Your task to perform on an android device: Open Wikipedia Image 0: 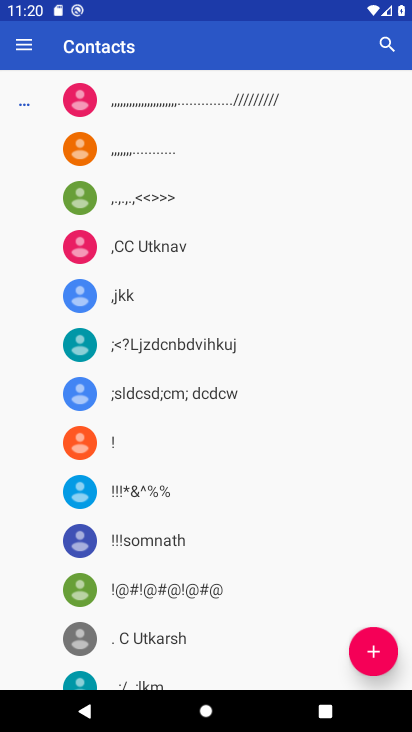
Step 0: press home button
Your task to perform on an android device: Open Wikipedia Image 1: 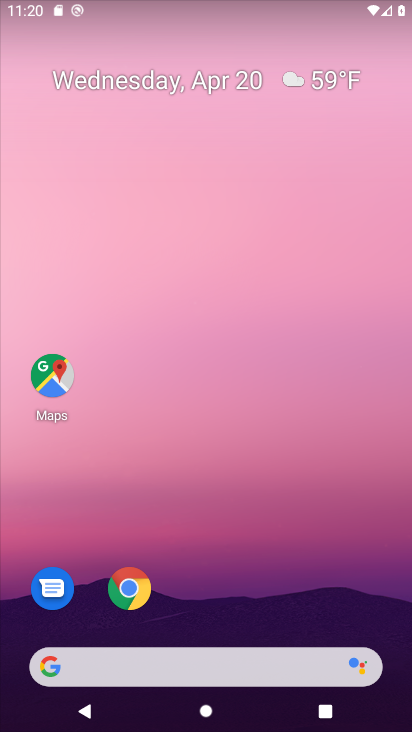
Step 1: drag from (394, 636) to (344, 450)
Your task to perform on an android device: Open Wikipedia Image 2: 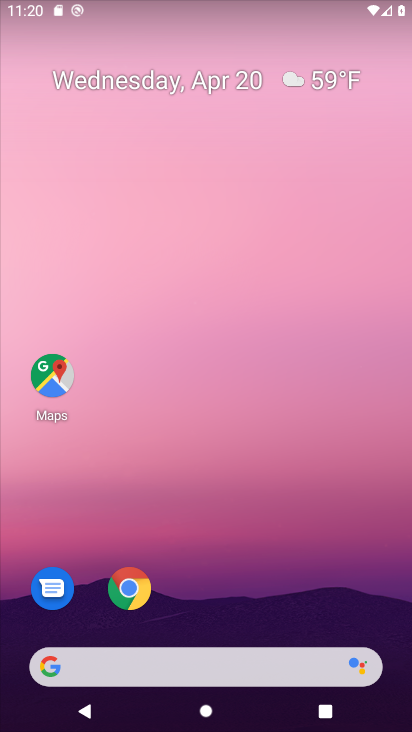
Step 2: click (132, 590)
Your task to perform on an android device: Open Wikipedia Image 3: 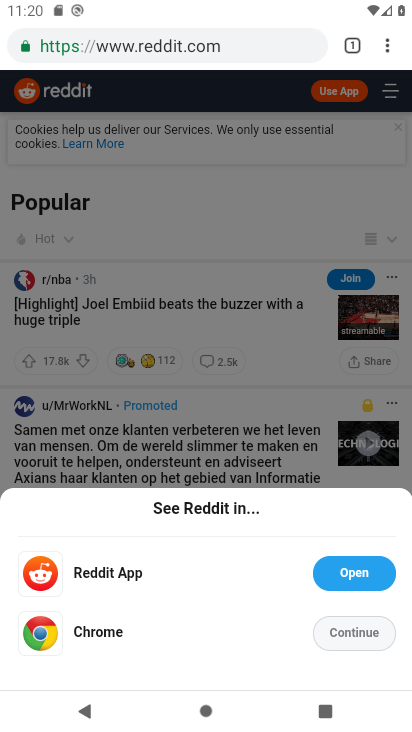
Step 3: click (386, 41)
Your task to perform on an android device: Open Wikipedia Image 4: 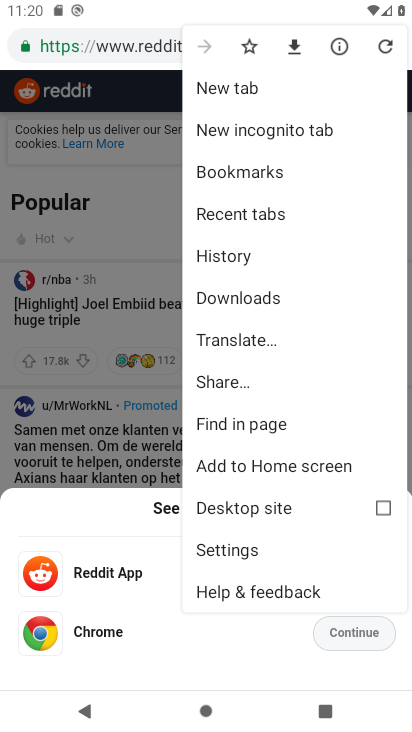
Step 4: click (215, 84)
Your task to perform on an android device: Open Wikipedia Image 5: 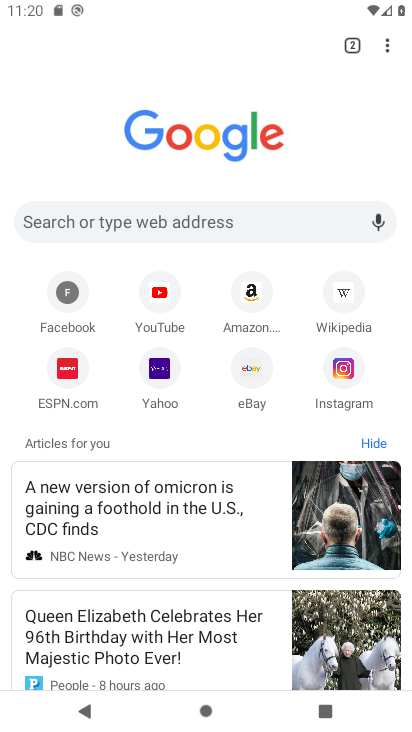
Step 5: click (333, 298)
Your task to perform on an android device: Open Wikipedia Image 6: 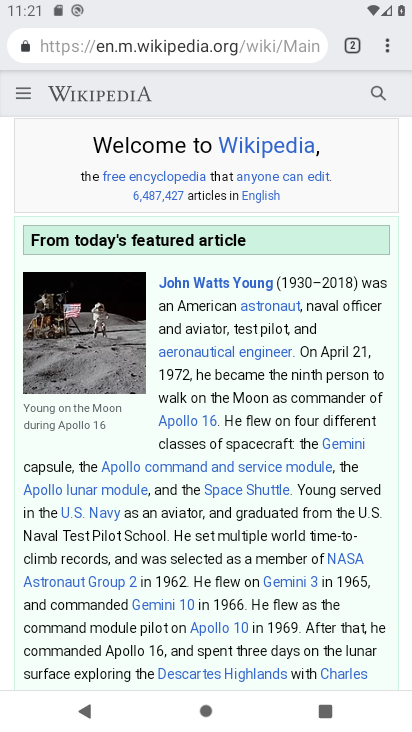
Step 6: task complete